Your task to perform on an android device: delete location history Image 0: 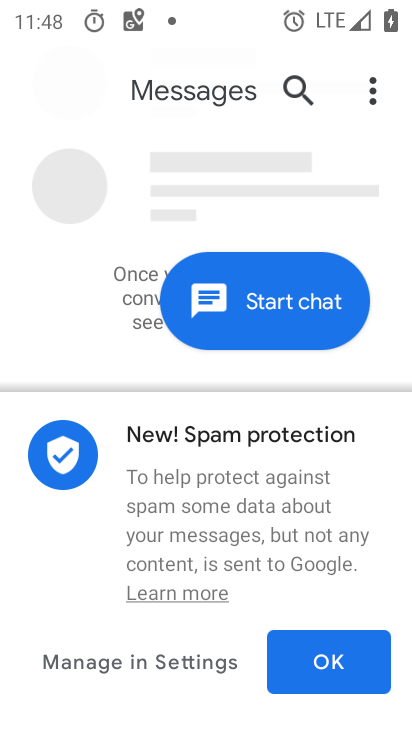
Step 0: press home button
Your task to perform on an android device: delete location history Image 1: 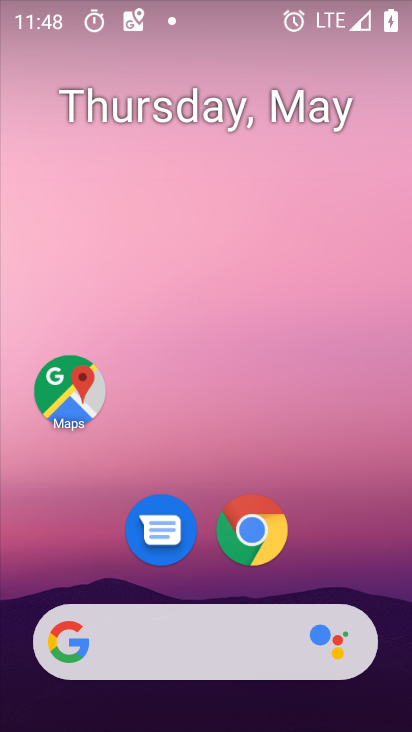
Step 1: drag from (205, 569) to (216, 63)
Your task to perform on an android device: delete location history Image 2: 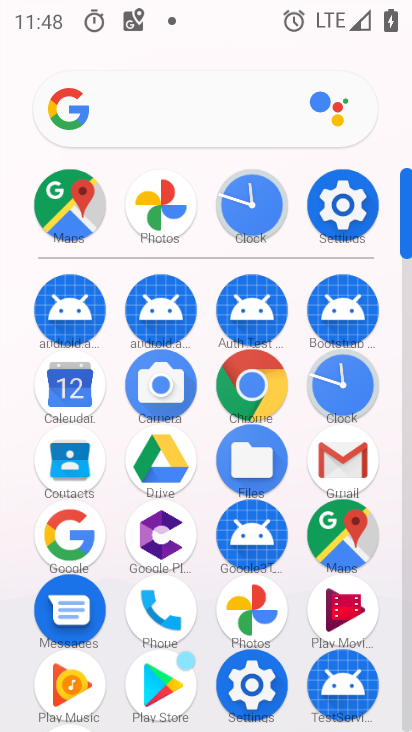
Step 2: click (338, 529)
Your task to perform on an android device: delete location history Image 3: 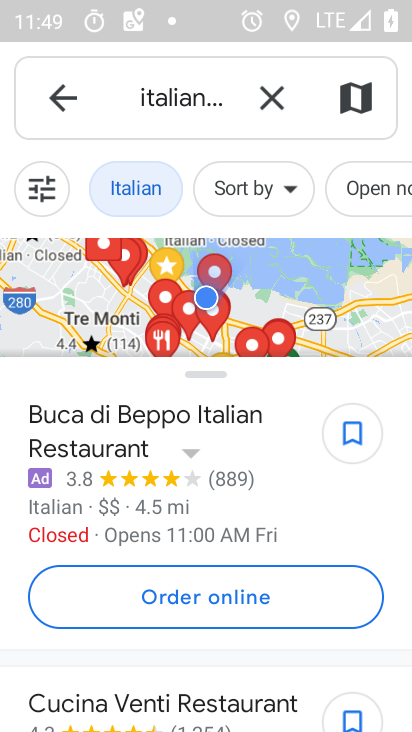
Step 3: click (69, 101)
Your task to perform on an android device: delete location history Image 4: 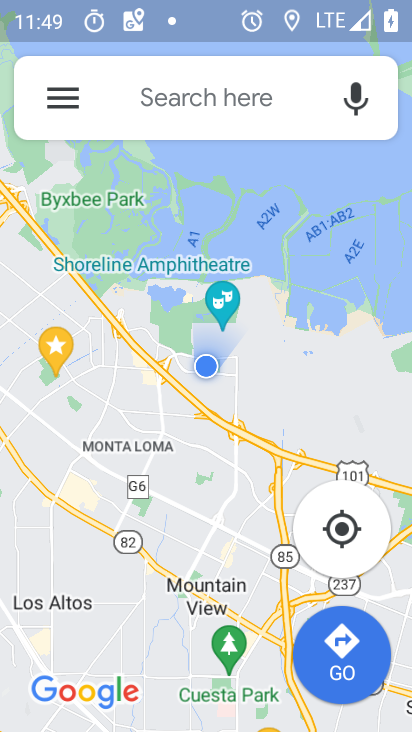
Step 4: click (56, 90)
Your task to perform on an android device: delete location history Image 5: 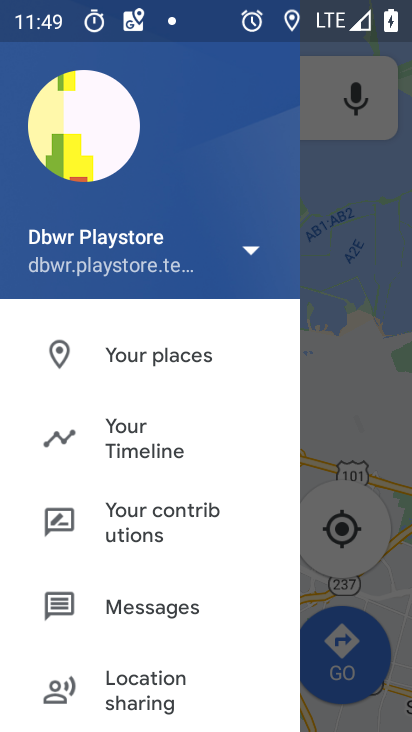
Step 5: click (91, 427)
Your task to perform on an android device: delete location history Image 6: 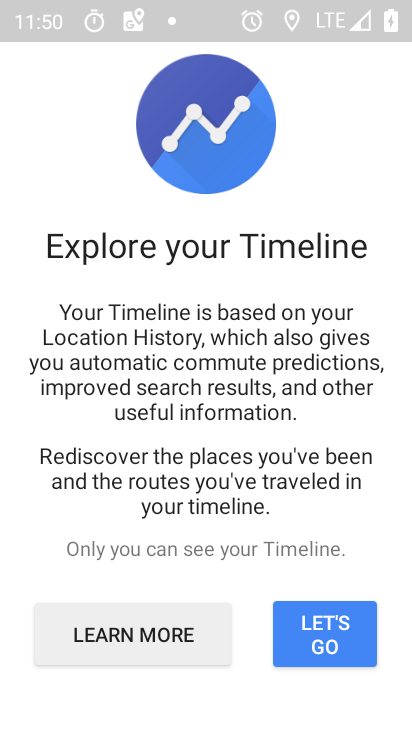
Step 6: click (307, 637)
Your task to perform on an android device: delete location history Image 7: 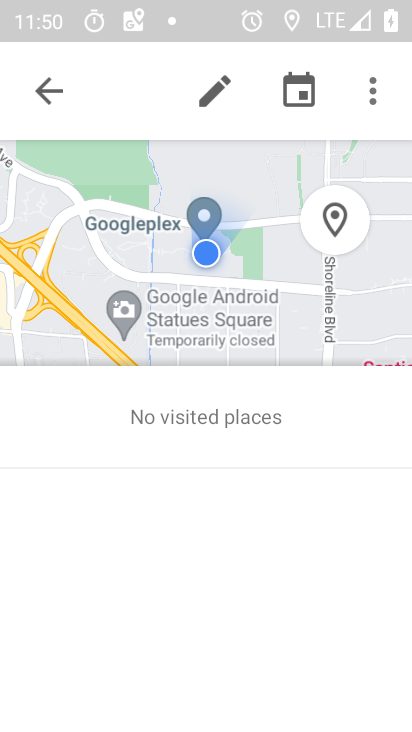
Step 7: click (369, 101)
Your task to perform on an android device: delete location history Image 8: 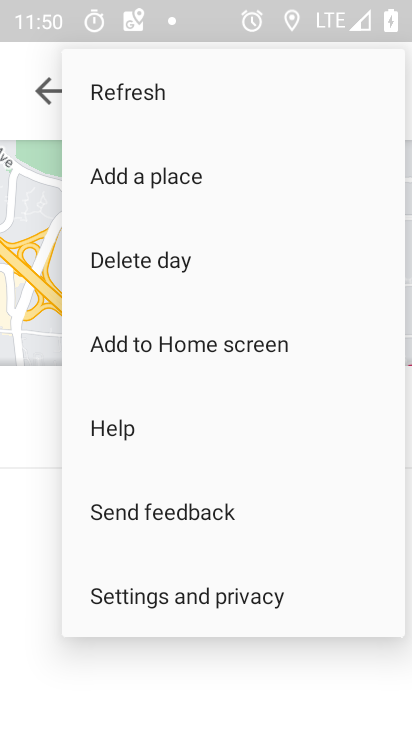
Step 8: click (110, 614)
Your task to perform on an android device: delete location history Image 9: 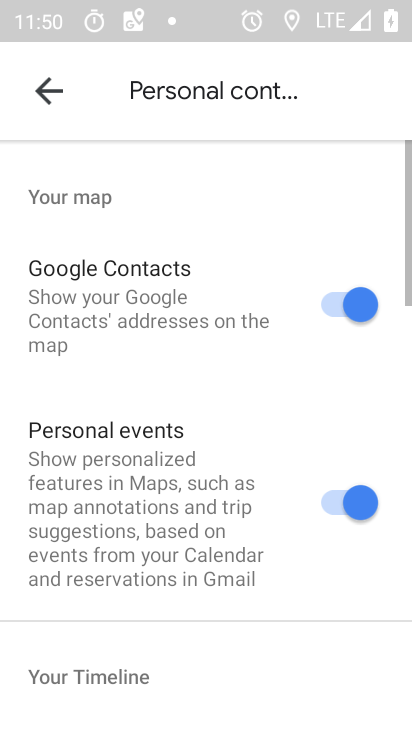
Step 9: drag from (126, 586) to (249, 90)
Your task to perform on an android device: delete location history Image 10: 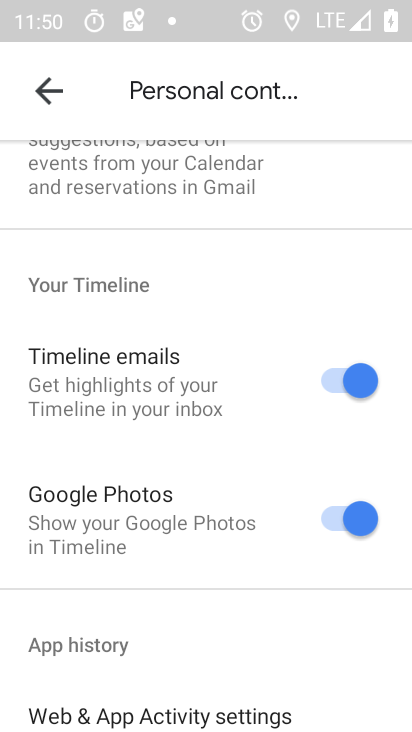
Step 10: drag from (198, 538) to (232, 136)
Your task to perform on an android device: delete location history Image 11: 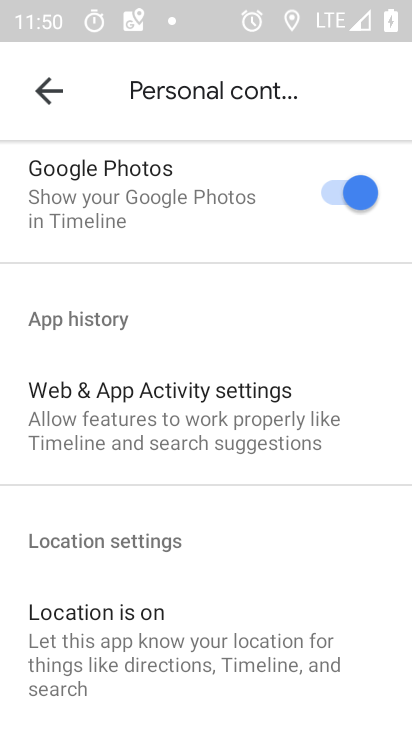
Step 11: drag from (223, 606) to (236, 111)
Your task to perform on an android device: delete location history Image 12: 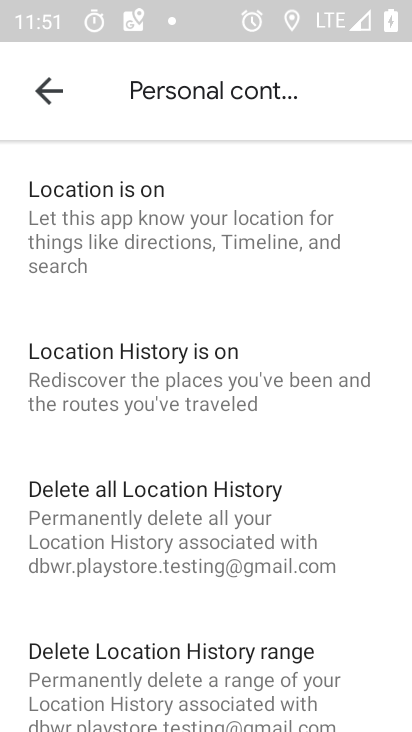
Step 12: click (122, 539)
Your task to perform on an android device: delete location history Image 13: 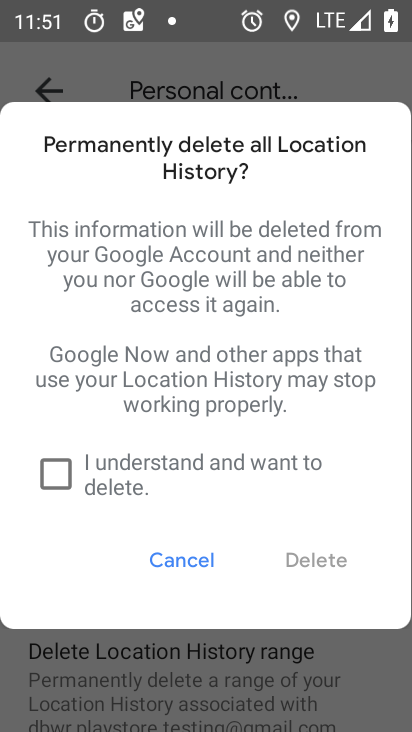
Step 13: click (107, 487)
Your task to perform on an android device: delete location history Image 14: 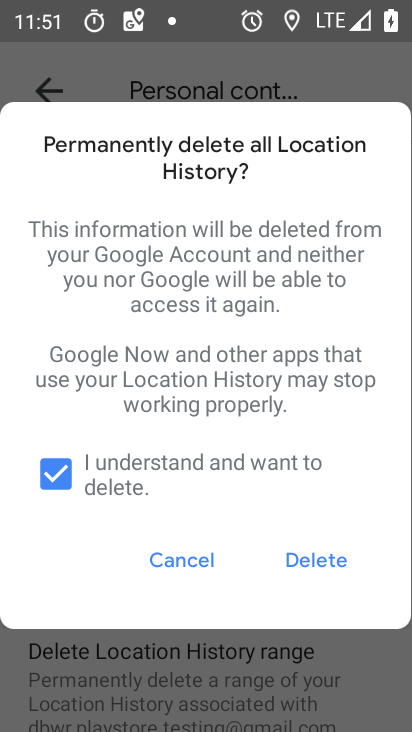
Step 14: click (309, 563)
Your task to perform on an android device: delete location history Image 15: 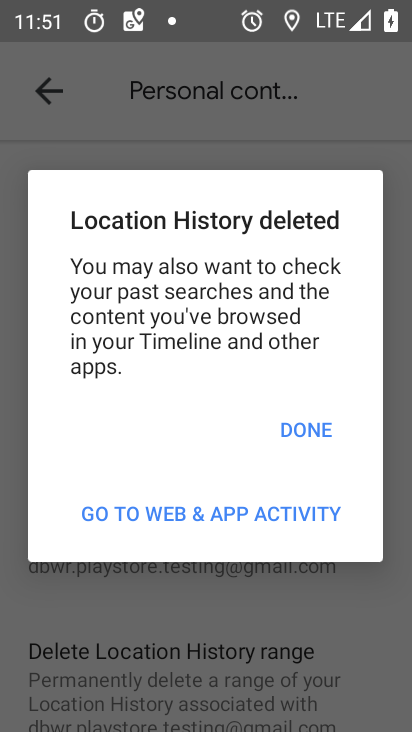
Step 15: click (294, 432)
Your task to perform on an android device: delete location history Image 16: 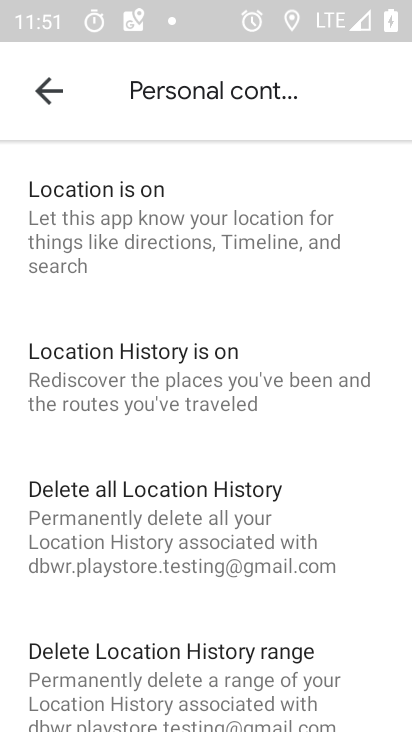
Step 16: task complete